Your task to perform on an android device: delete a single message in the gmail app Image 0: 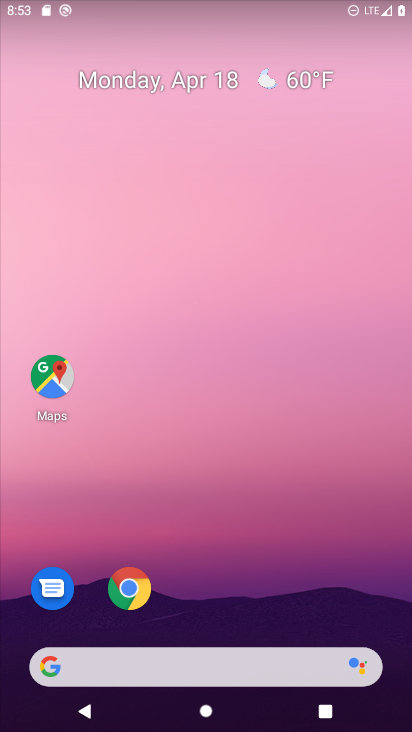
Step 0: drag from (398, 626) to (345, 99)
Your task to perform on an android device: delete a single message in the gmail app Image 1: 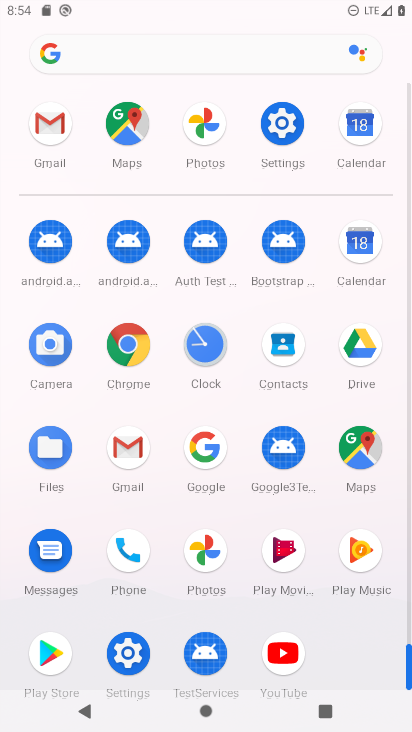
Step 1: click (127, 444)
Your task to perform on an android device: delete a single message in the gmail app Image 2: 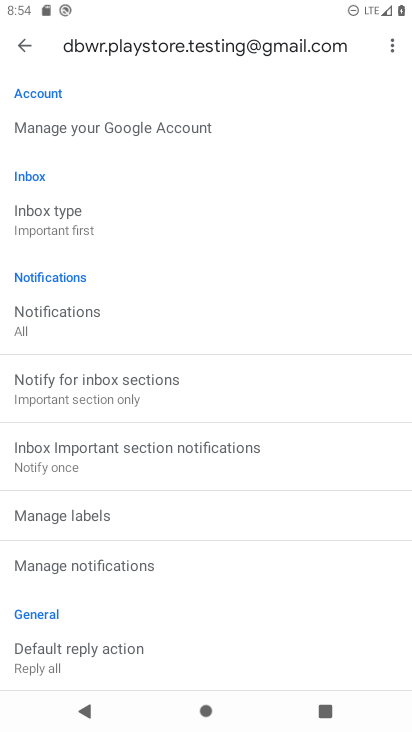
Step 2: press back button
Your task to perform on an android device: delete a single message in the gmail app Image 3: 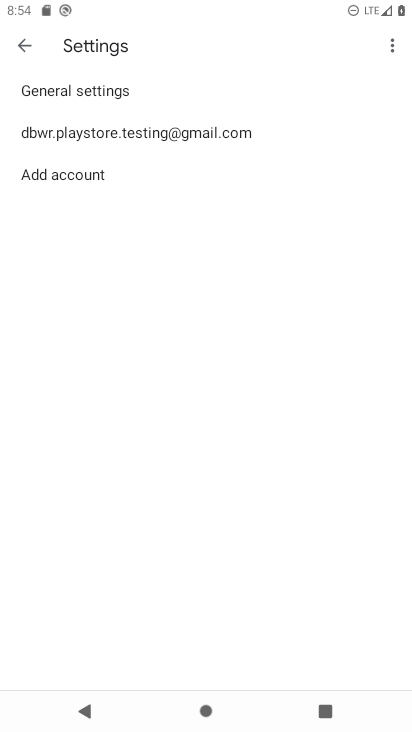
Step 3: press back button
Your task to perform on an android device: delete a single message in the gmail app Image 4: 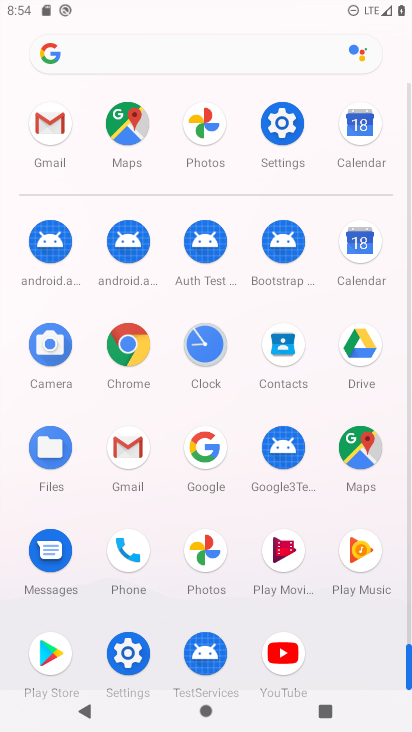
Step 4: click (123, 443)
Your task to perform on an android device: delete a single message in the gmail app Image 5: 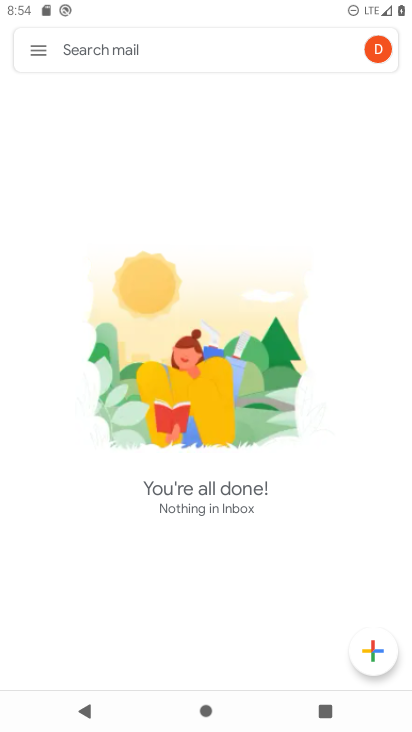
Step 5: click (38, 45)
Your task to perform on an android device: delete a single message in the gmail app Image 6: 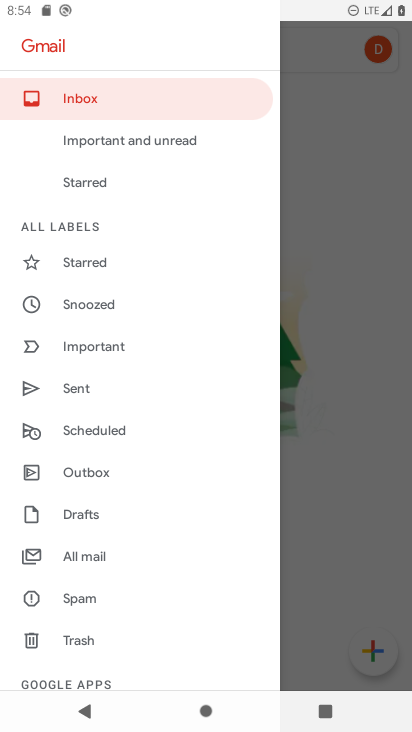
Step 6: click (78, 556)
Your task to perform on an android device: delete a single message in the gmail app Image 7: 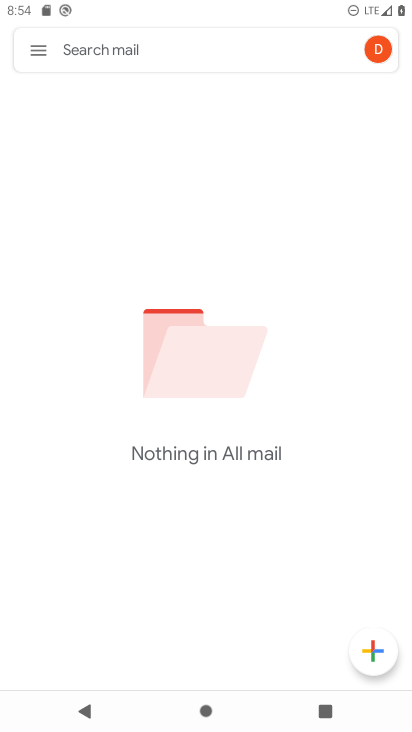
Step 7: task complete